Your task to perform on an android device: Check out the new ikea catalog. Image 0: 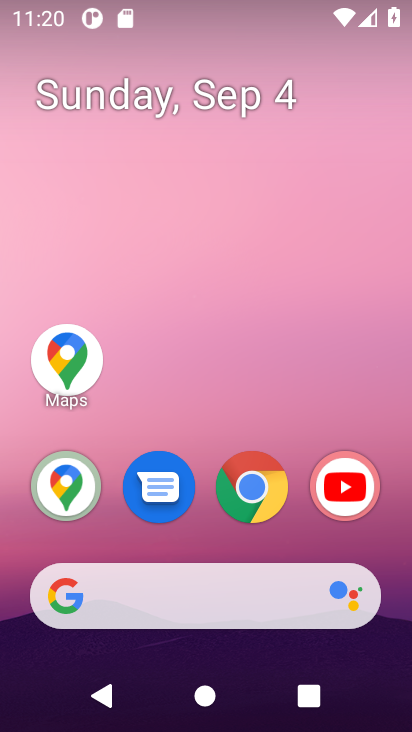
Step 0: click (262, 492)
Your task to perform on an android device: Check out the new ikea catalog. Image 1: 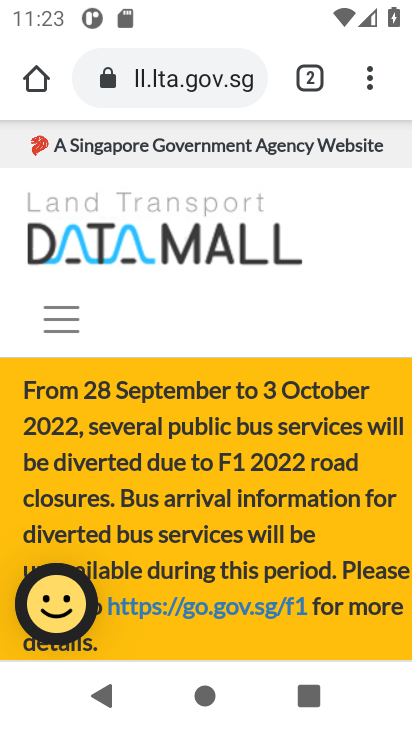
Step 1: task complete